Your task to perform on an android device: check android version Image 0: 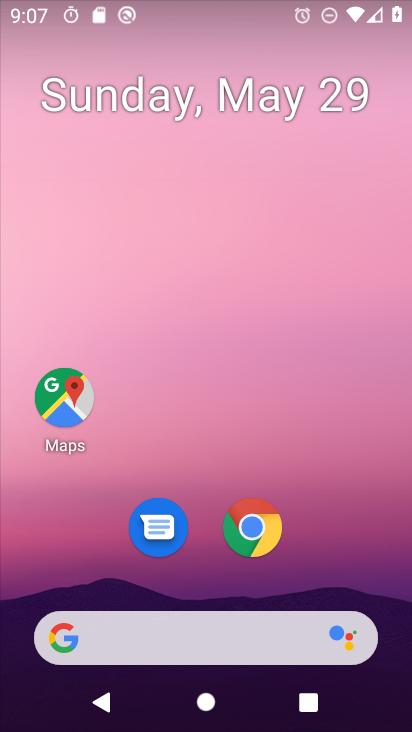
Step 0: drag from (401, 630) to (166, 3)
Your task to perform on an android device: check android version Image 1: 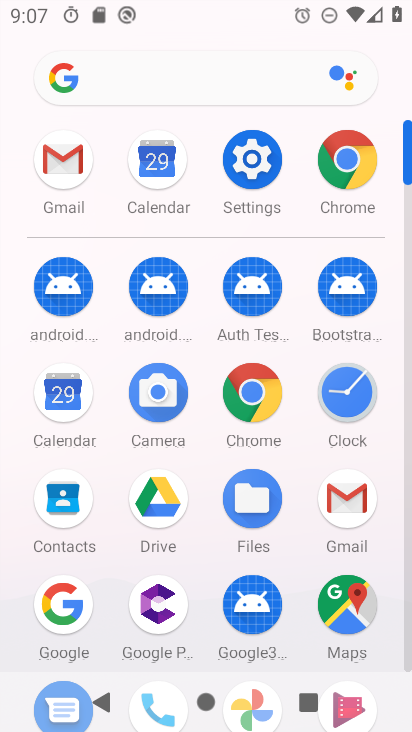
Step 1: click (272, 162)
Your task to perform on an android device: check android version Image 2: 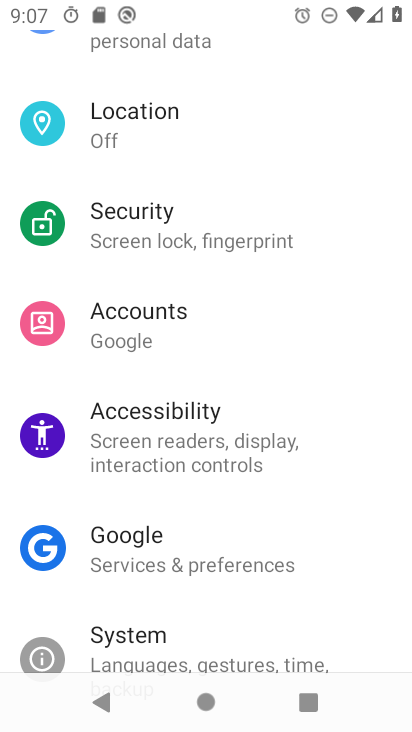
Step 2: drag from (247, 631) to (219, 19)
Your task to perform on an android device: check android version Image 3: 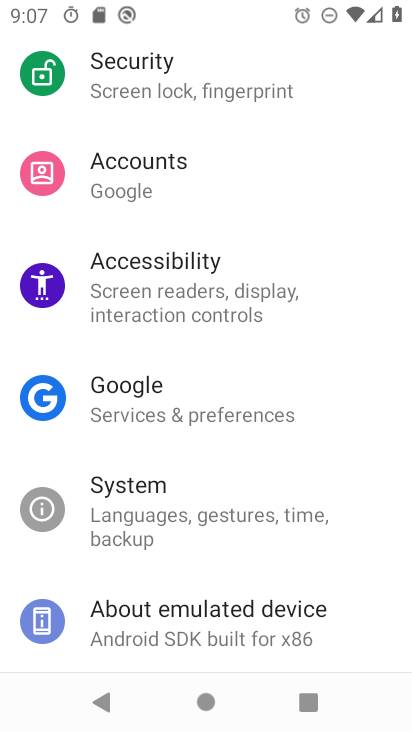
Step 3: click (236, 612)
Your task to perform on an android device: check android version Image 4: 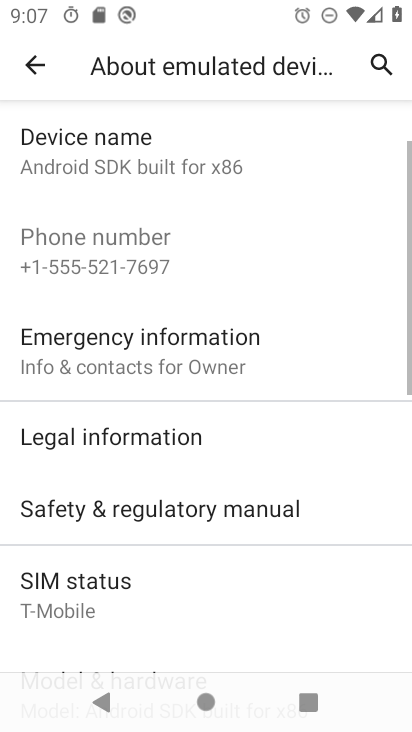
Step 4: drag from (225, 617) to (220, 234)
Your task to perform on an android device: check android version Image 5: 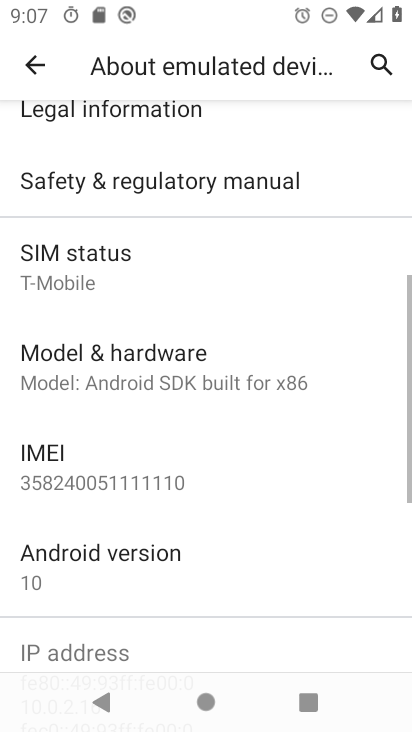
Step 5: click (148, 588)
Your task to perform on an android device: check android version Image 6: 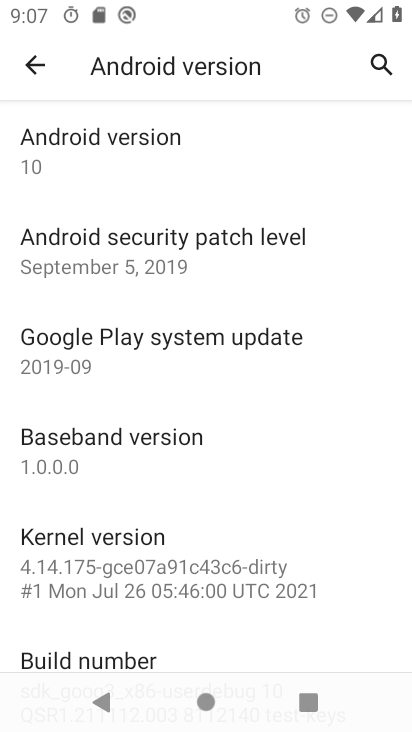
Step 6: task complete